Your task to perform on an android device: Open the clock Image 0: 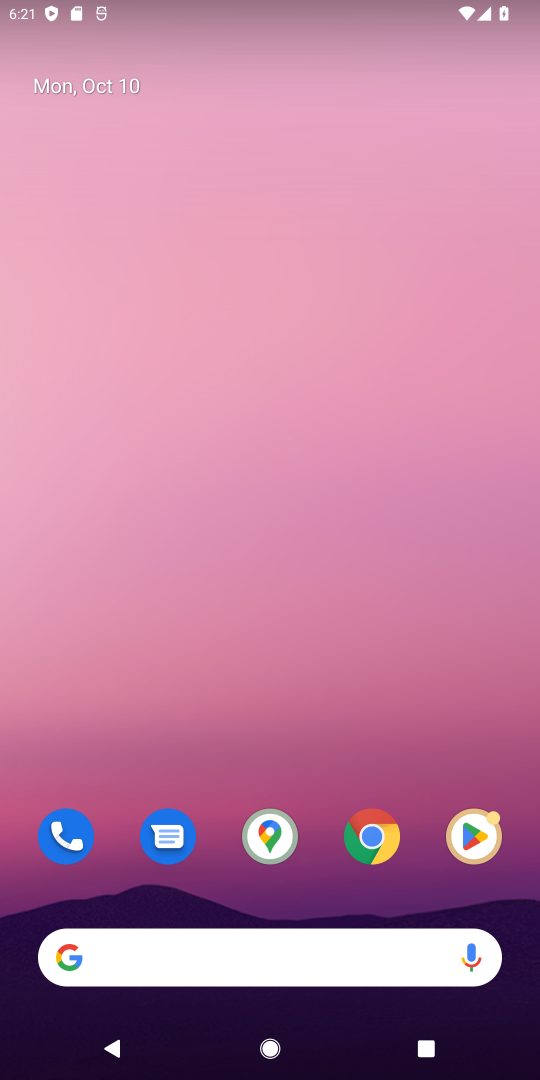
Step 0: drag from (308, 886) to (294, 121)
Your task to perform on an android device: Open the clock Image 1: 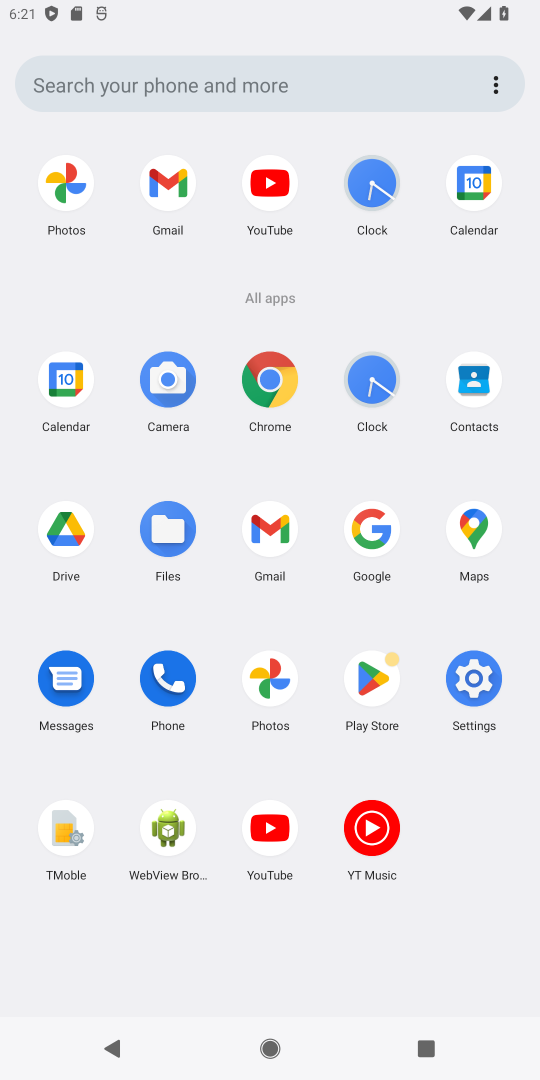
Step 1: click (369, 380)
Your task to perform on an android device: Open the clock Image 2: 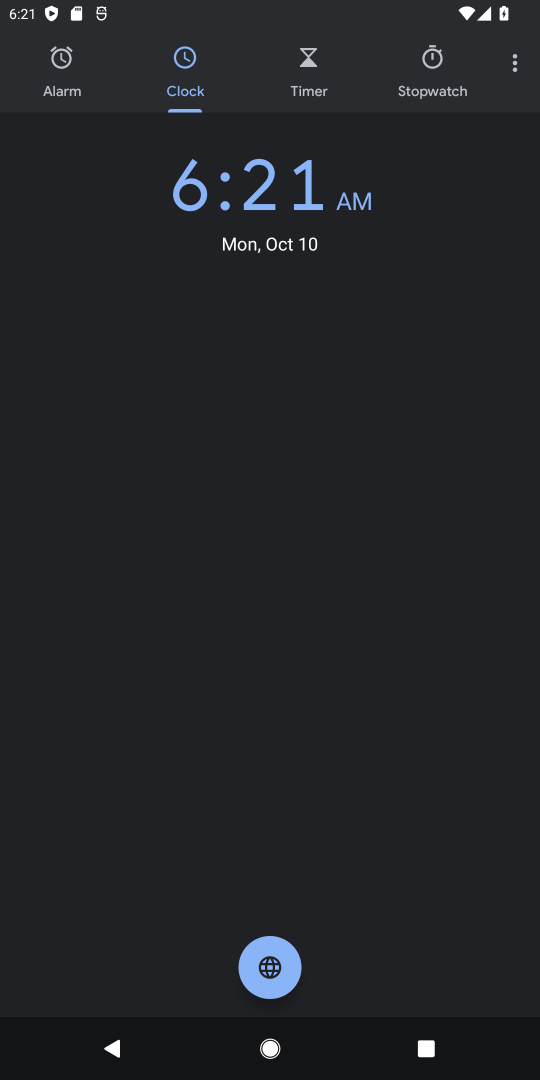
Step 2: task complete